Your task to perform on an android device: When is my next meeting? Image 0: 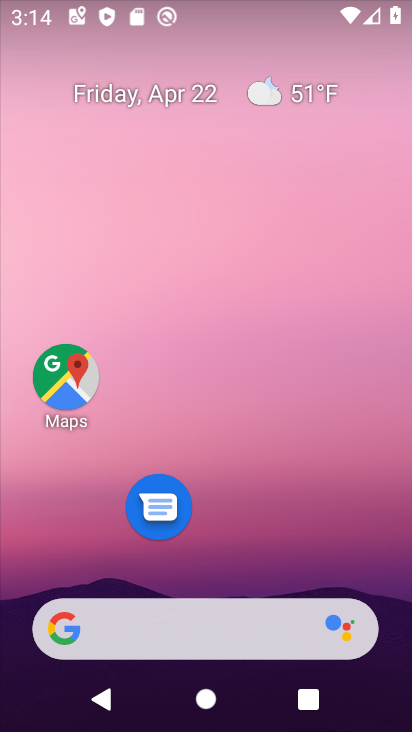
Step 0: drag from (232, 509) to (376, 0)
Your task to perform on an android device: When is my next meeting? Image 1: 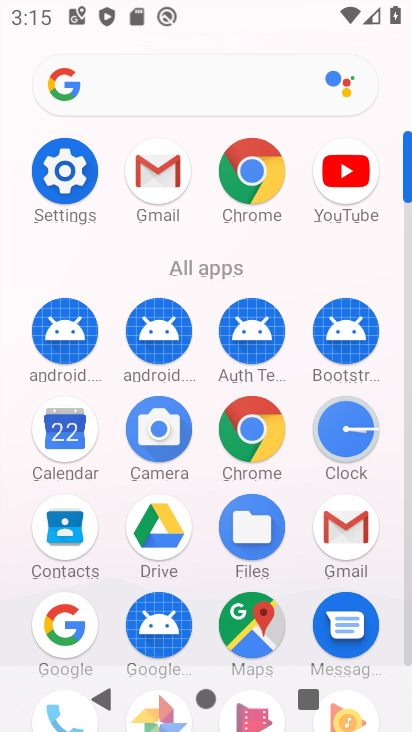
Step 1: click (54, 446)
Your task to perform on an android device: When is my next meeting? Image 2: 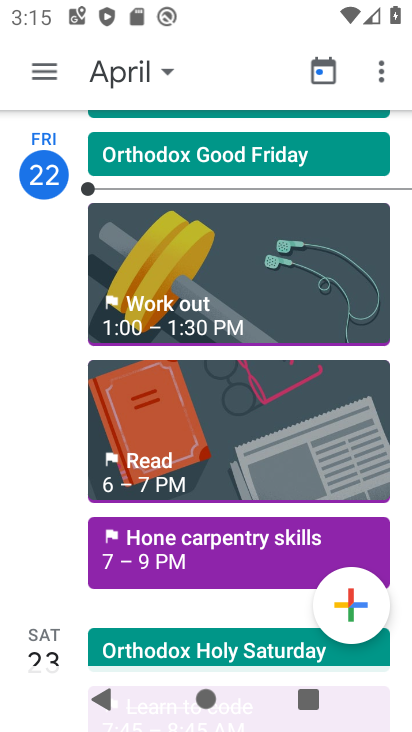
Step 2: task complete